Your task to perform on an android device: Go to ESPN.com Image 0: 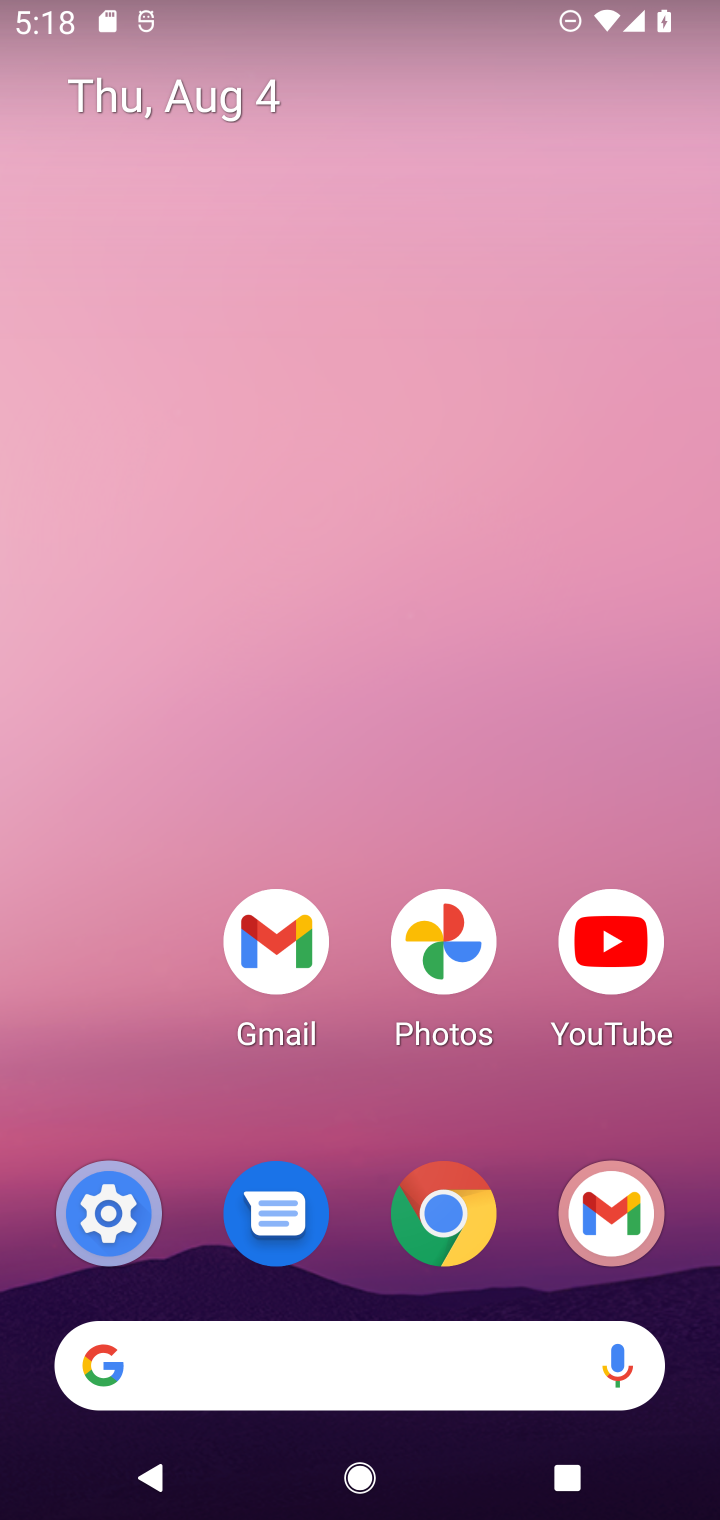
Step 0: press home button
Your task to perform on an android device: Go to ESPN.com Image 1: 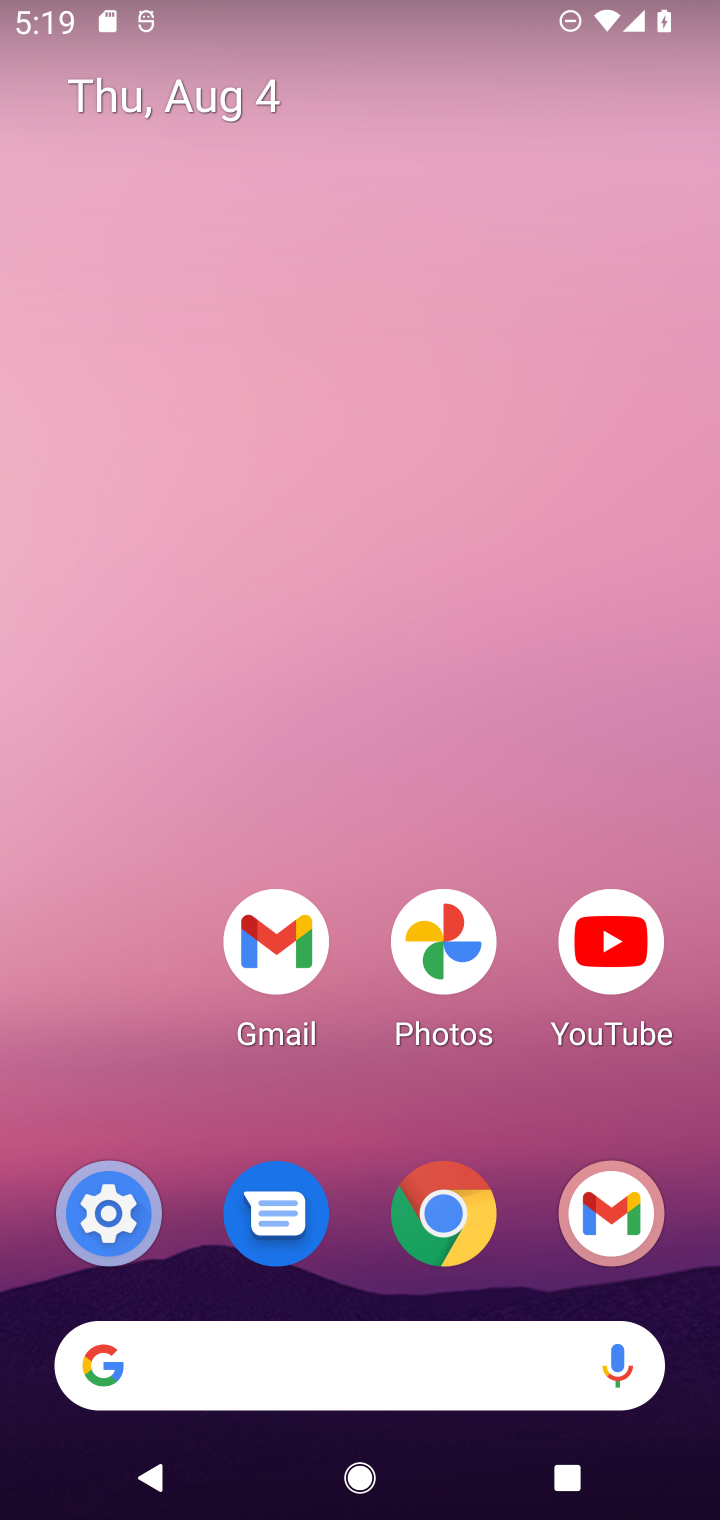
Step 1: drag from (171, 1104) to (180, 555)
Your task to perform on an android device: Go to ESPN.com Image 2: 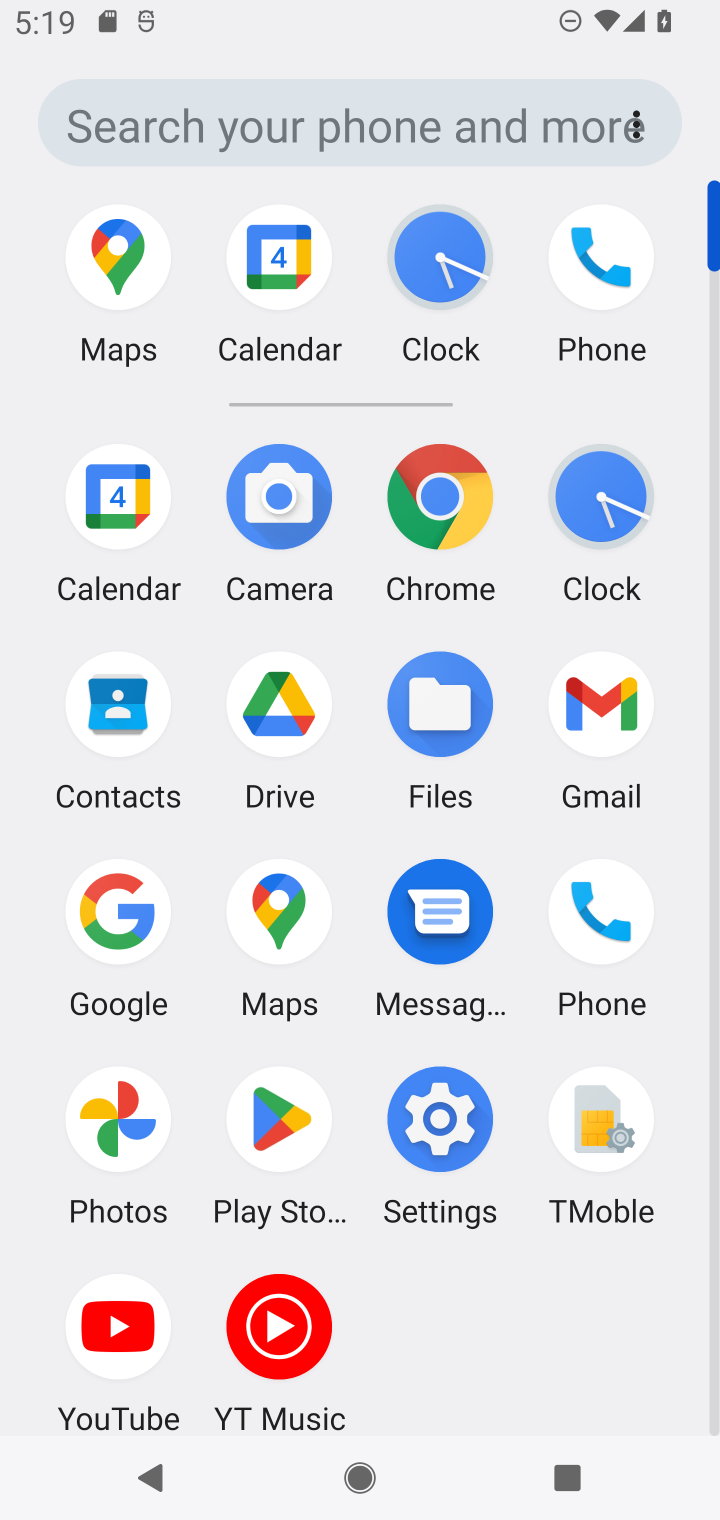
Step 2: click (450, 519)
Your task to perform on an android device: Go to ESPN.com Image 3: 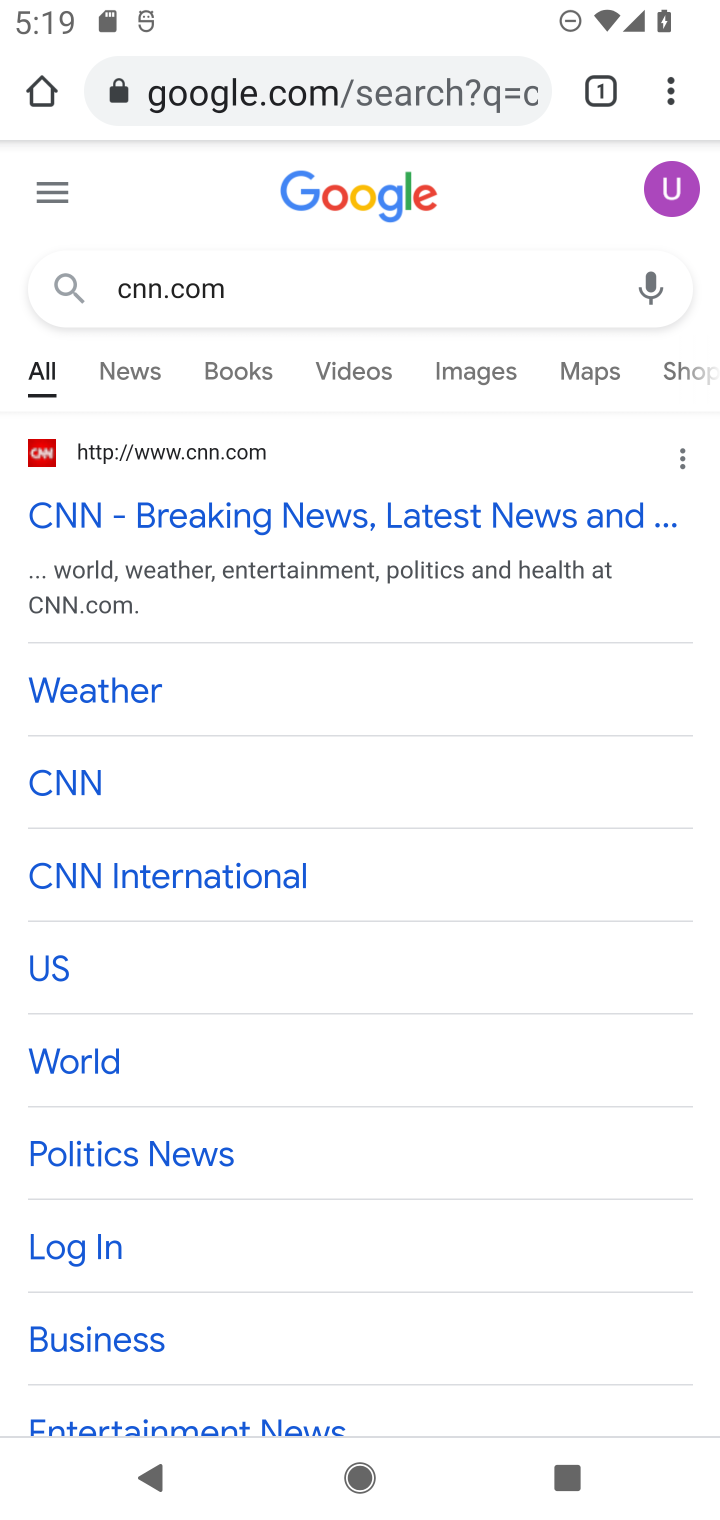
Step 3: click (432, 91)
Your task to perform on an android device: Go to ESPN.com Image 4: 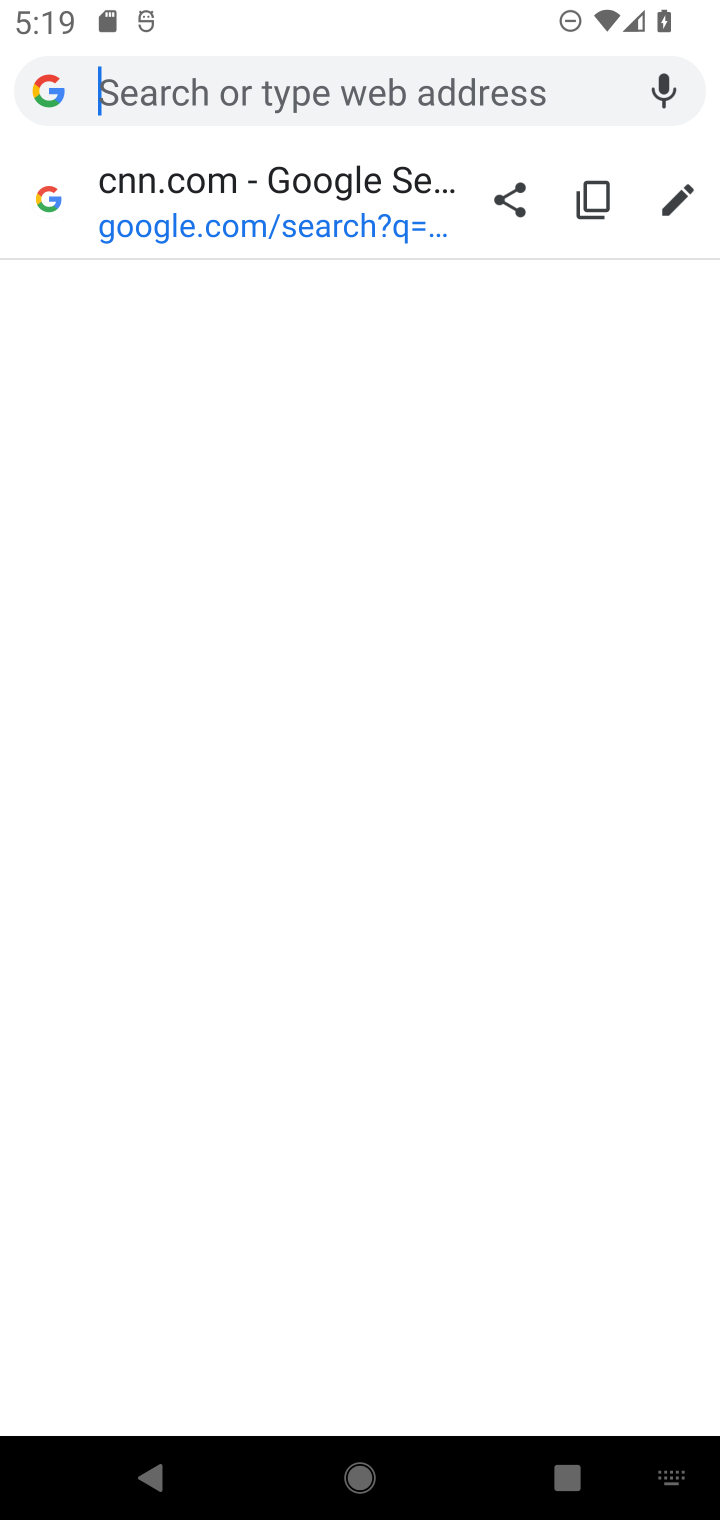
Step 4: type "espn.com"
Your task to perform on an android device: Go to ESPN.com Image 5: 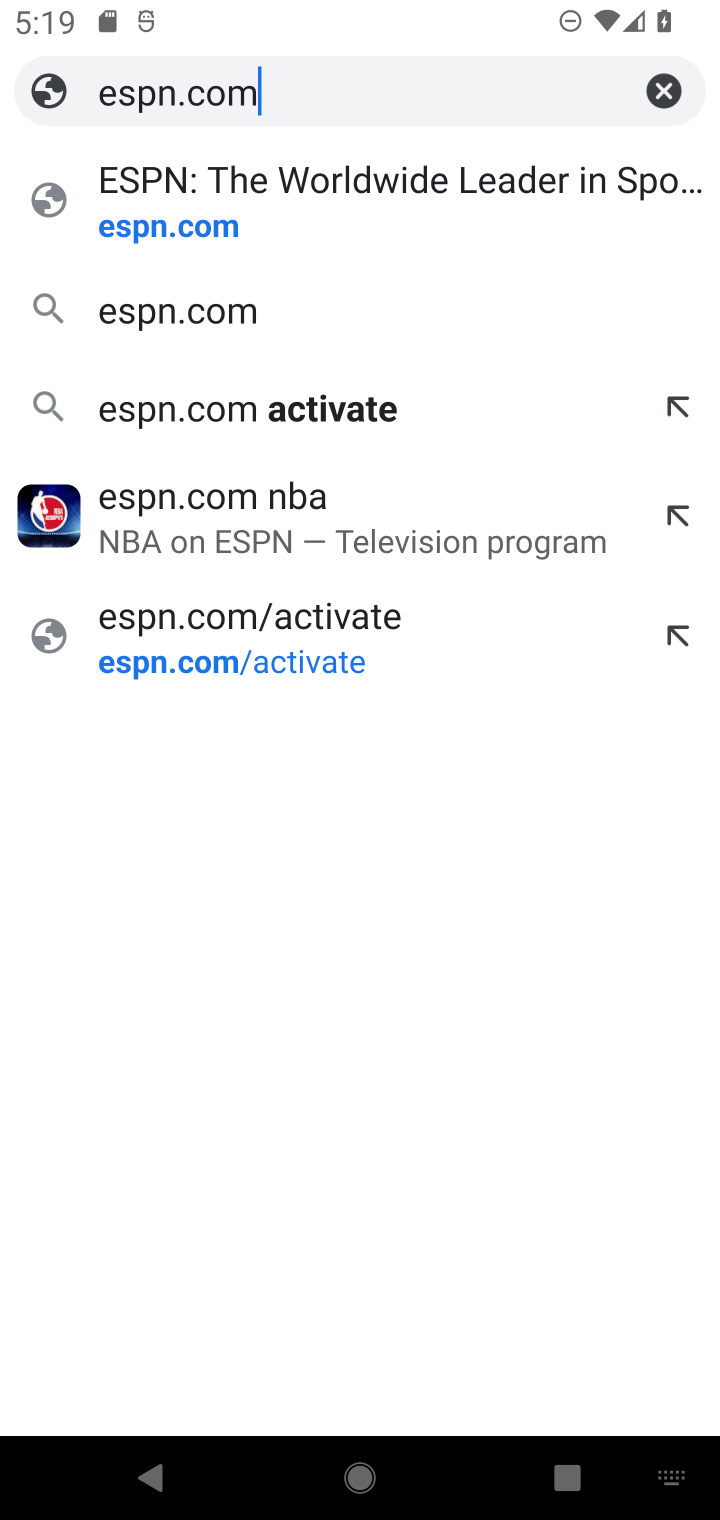
Step 5: click (284, 183)
Your task to perform on an android device: Go to ESPN.com Image 6: 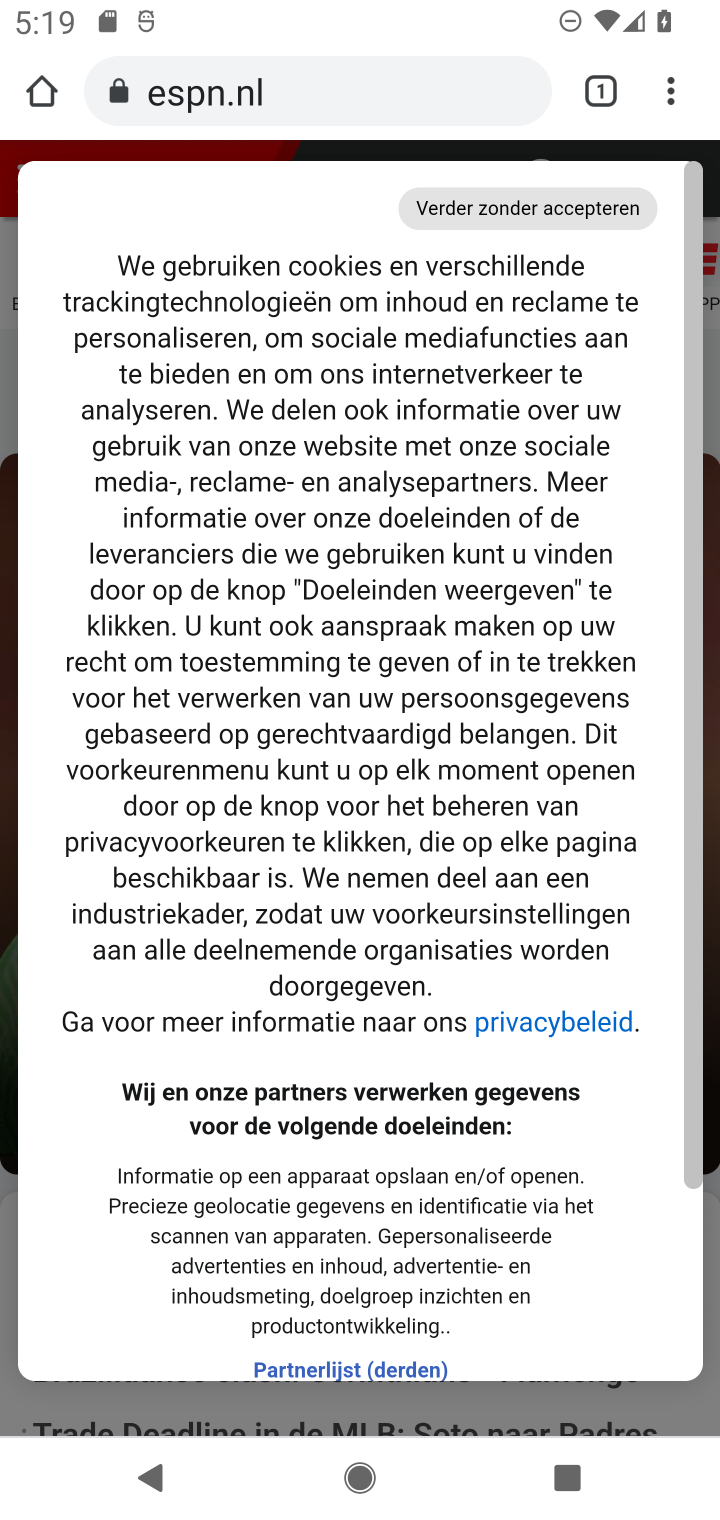
Step 6: task complete